Your task to perform on an android device: Search for a new blush Image 0: 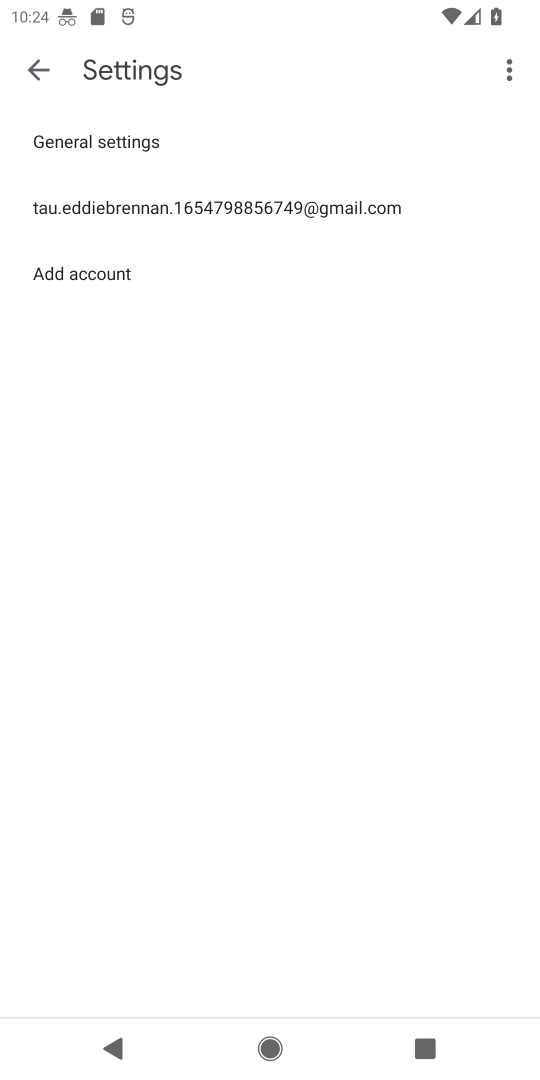
Step 0: press home button
Your task to perform on an android device: Search for a new blush Image 1: 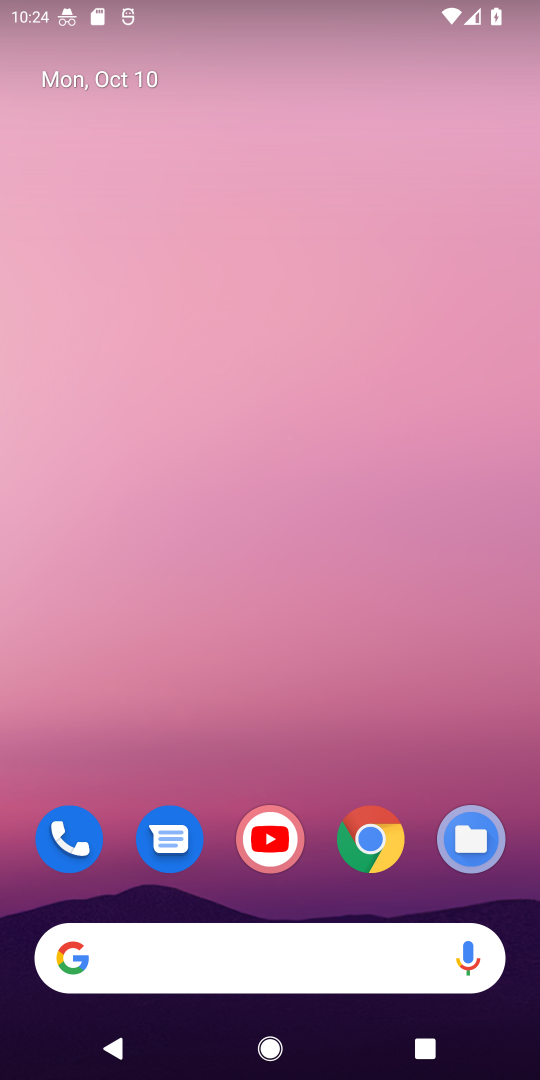
Step 1: drag from (321, 881) to (315, 78)
Your task to perform on an android device: Search for a new blush Image 2: 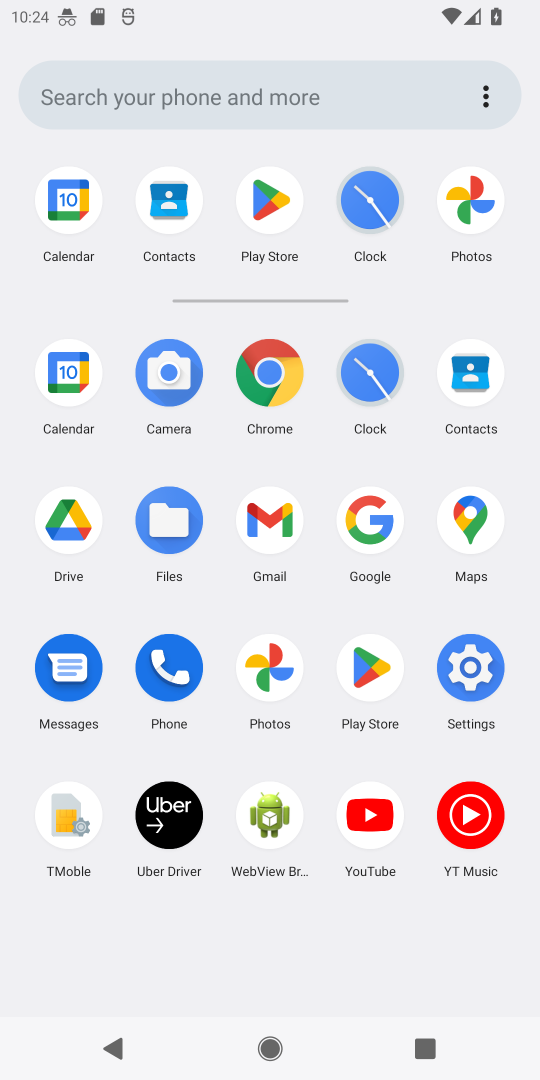
Step 2: click (271, 370)
Your task to perform on an android device: Search for a new blush Image 3: 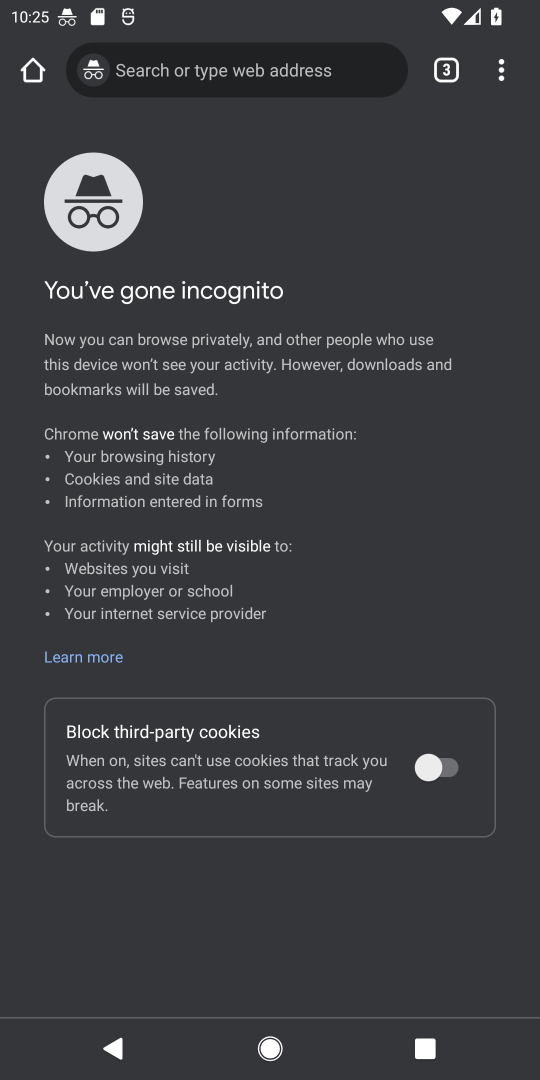
Step 3: click (263, 58)
Your task to perform on an android device: Search for a new blush Image 4: 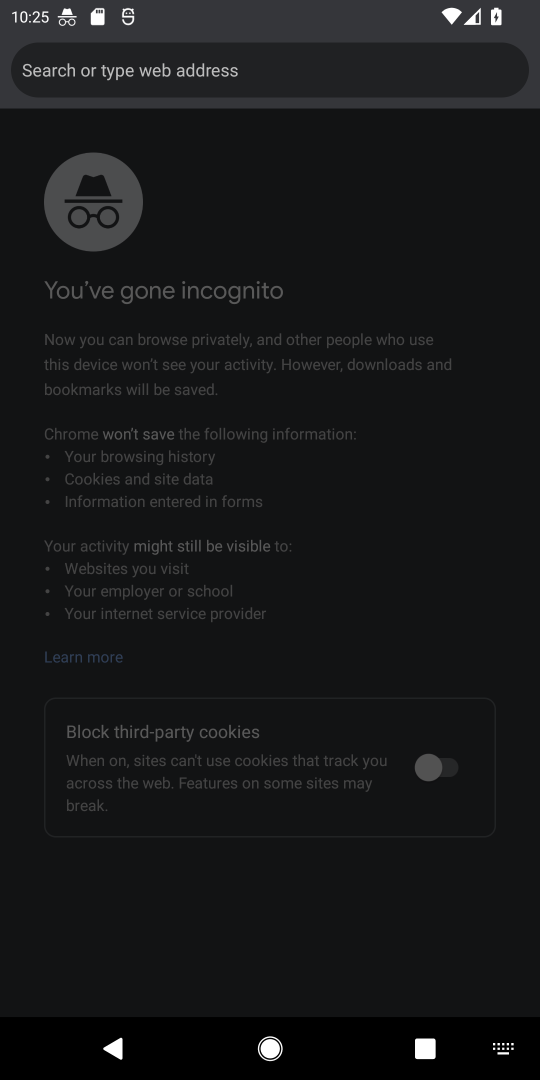
Step 4: type "a new blush"
Your task to perform on an android device: Search for a new blush Image 5: 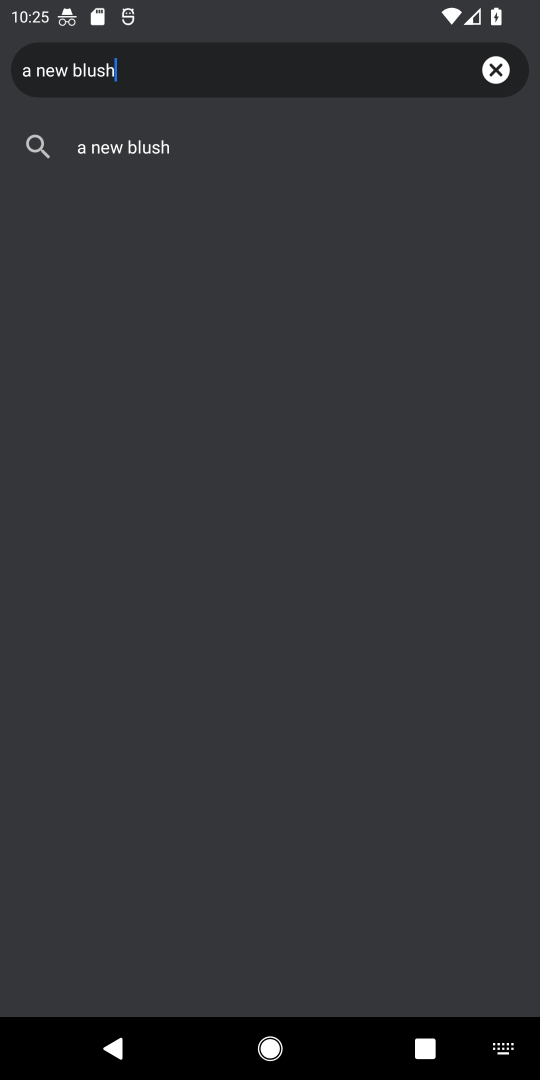
Step 5: press enter
Your task to perform on an android device: Search for a new blush Image 6: 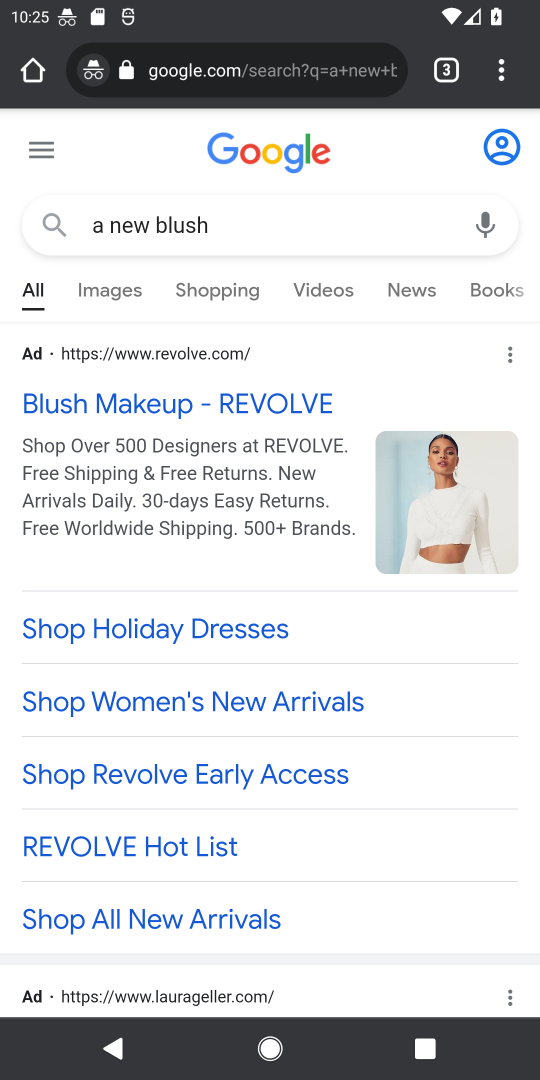
Step 6: drag from (188, 781) to (217, 149)
Your task to perform on an android device: Search for a new blush Image 7: 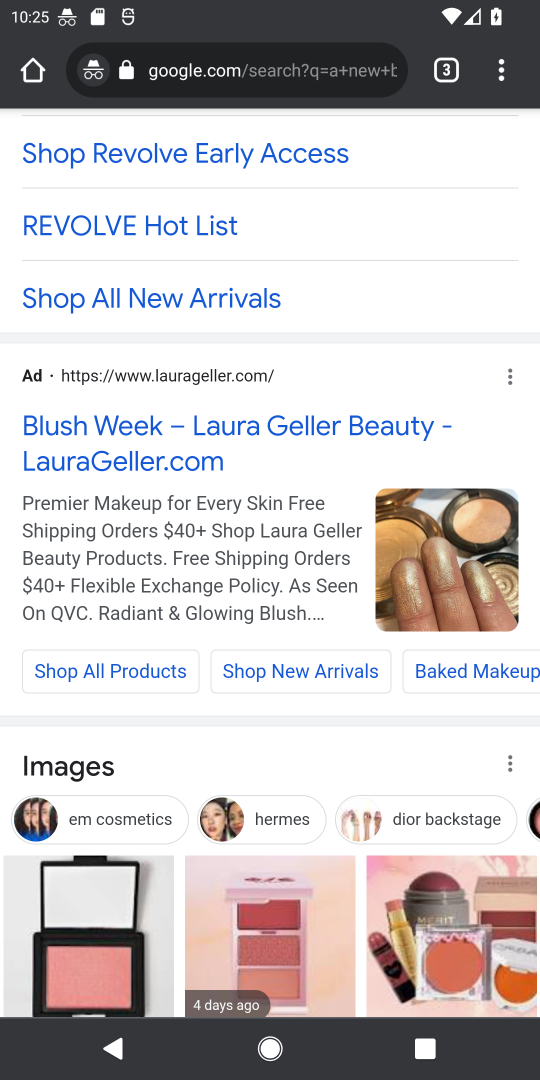
Step 7: drag from (219, 697) to (295, 105)
Your task to perform on an android device: Search for a new blush Image 8: 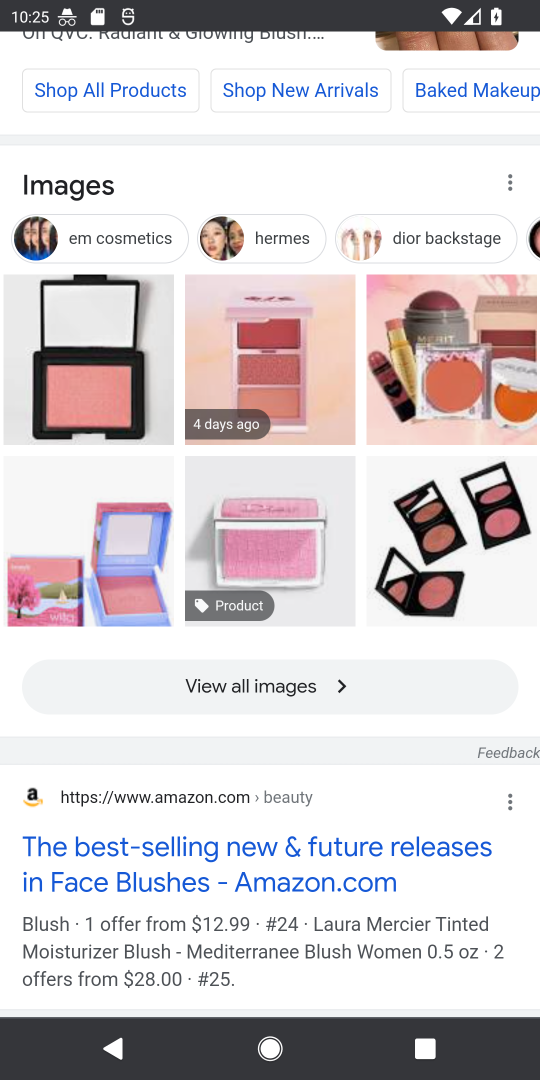
Step 8: drag from (269, 699) to (261, 289)
Your task to perform on an android device: Search for a new blush Image 9: 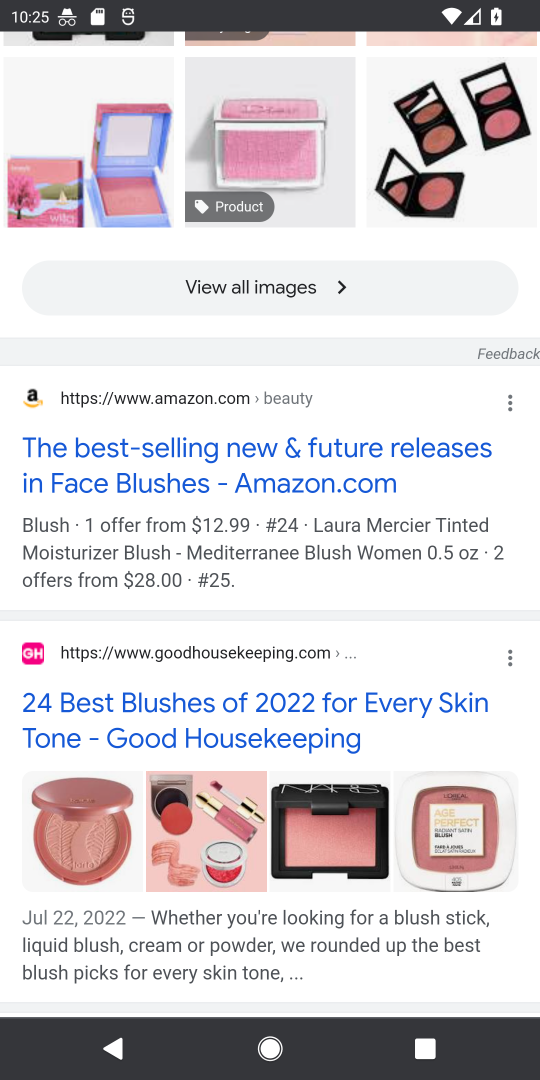
Step 9: click (180, 466)
Your task to perform on an android device: Search for a new blush Image 10: 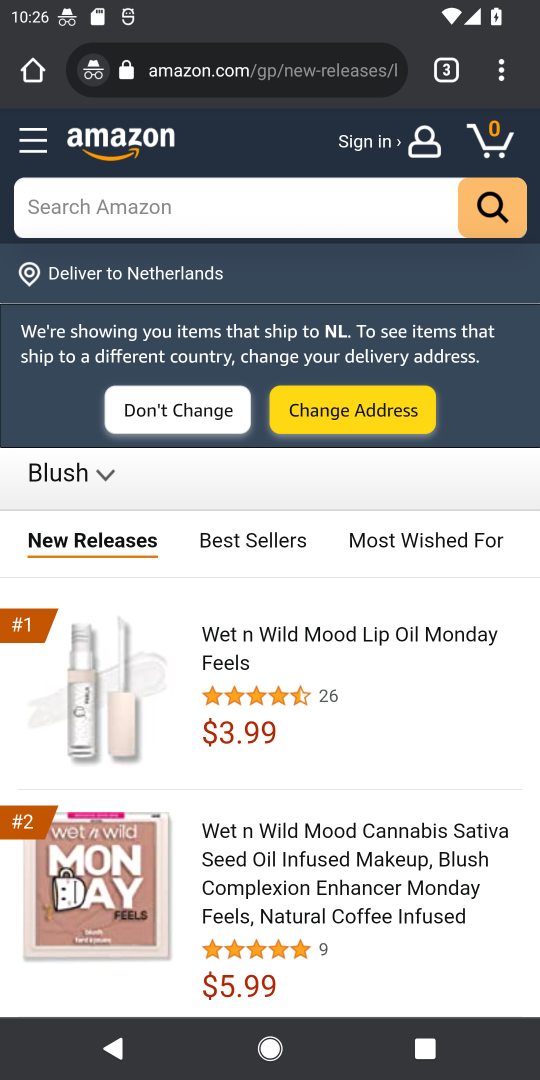
Step 10: task complete